Your task to perform on an android device: Turn on the flashlight Image 0: 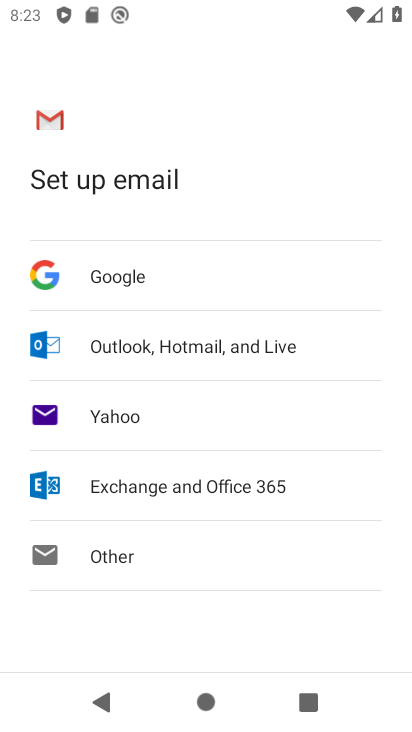
Step 0: press home button
Your task to perform on an android device: Turn on the flashlight Image 1: 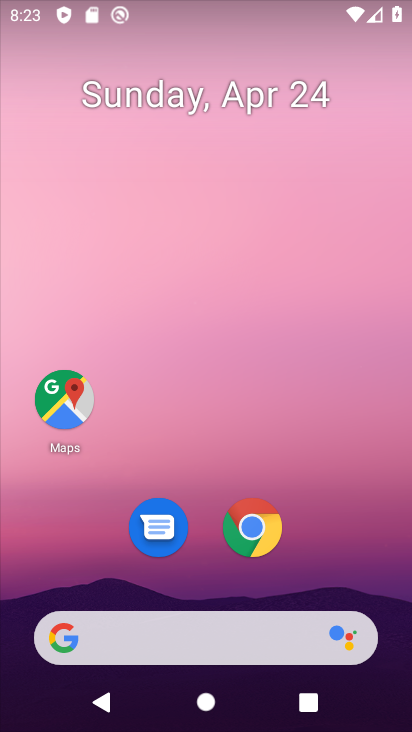
Step 1: task complete